Your task to perform on an android device: turn off location history Image 0: 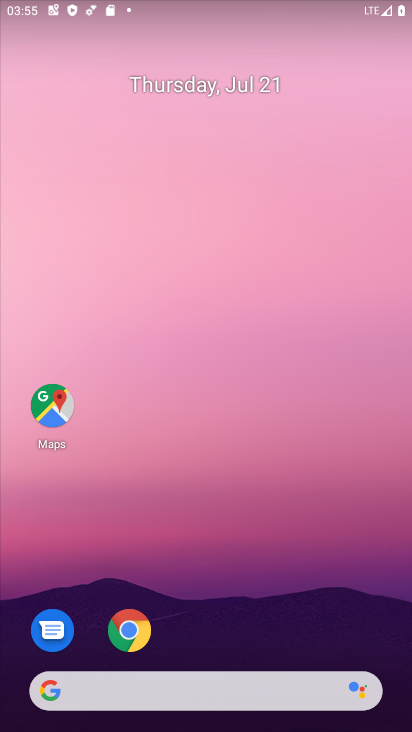
Step 0: drag from (195, 628) to (202, 6)
Your task to perform on an android device: turn off location history Image 1: 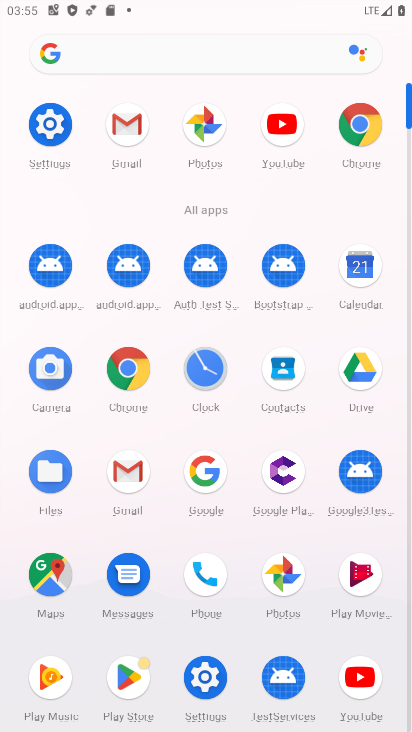
Step 1: click (57, 180)
Your task to perform on an android device: turn off location history Image 2: 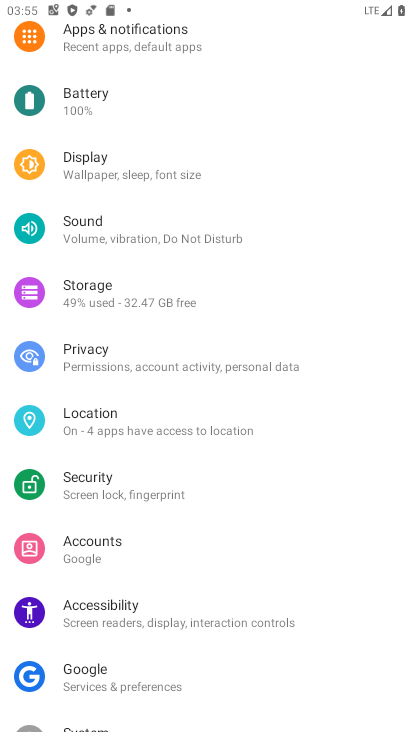
Step 2: click (140, 404)
Your task to perform on an android device: turn off location history Image 3: 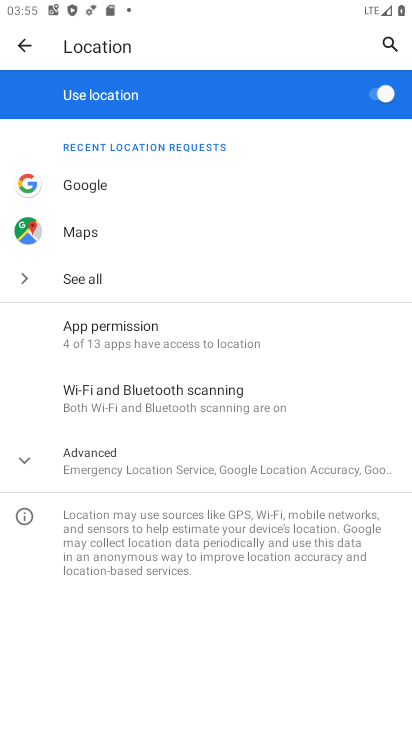
Step 3: click (101, 459)
Your task to perform on an android device: turn off location history Image 4: 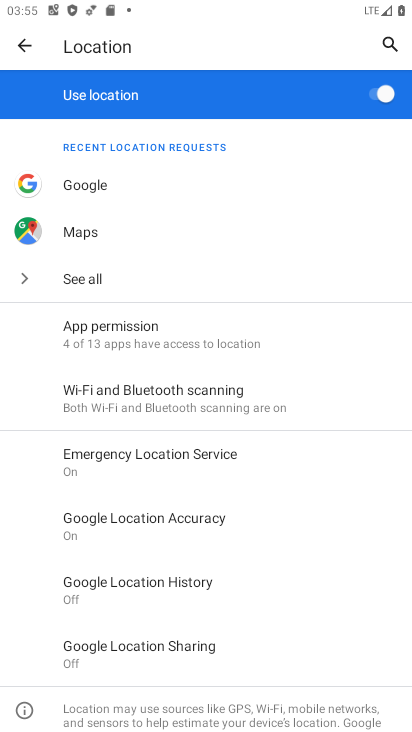
Step 4: click (214, 589)
Your task to perform on an android device: turn off location history Image 5: 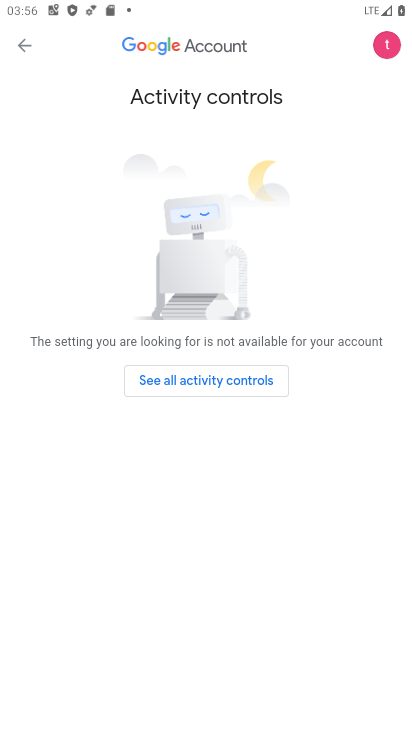
Step 5: task complete